Your task to perform on an android device: turn off wifi Image 0: 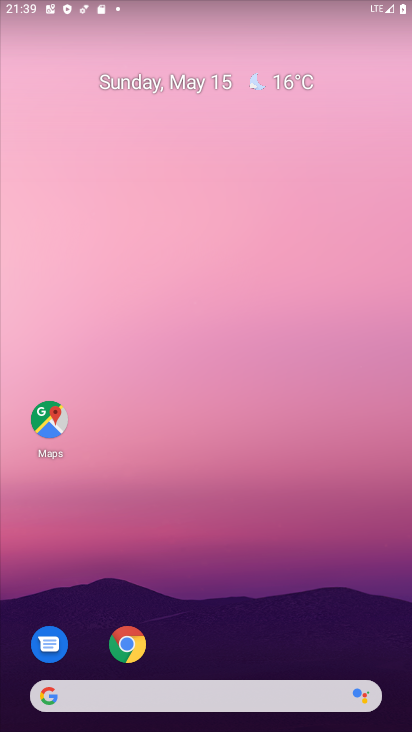
Step 0: drag from (91, 3) to (88, 359)
Your task to perform on an android device: turn off wifi Image 1: 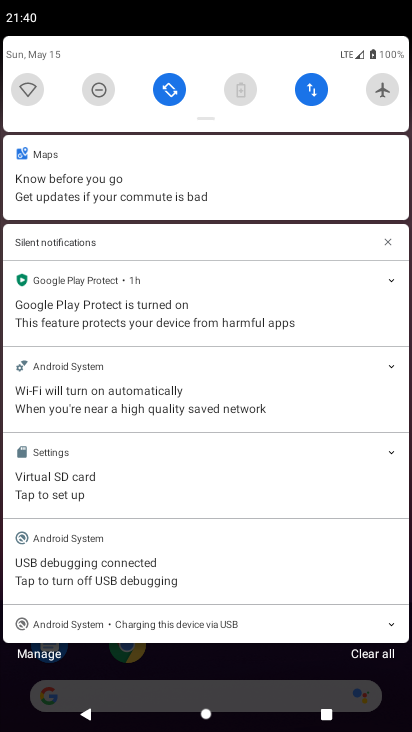
Step 1: task complete